Your task to perform on an android device: install app "Speedtest by Ookla" Image 0: 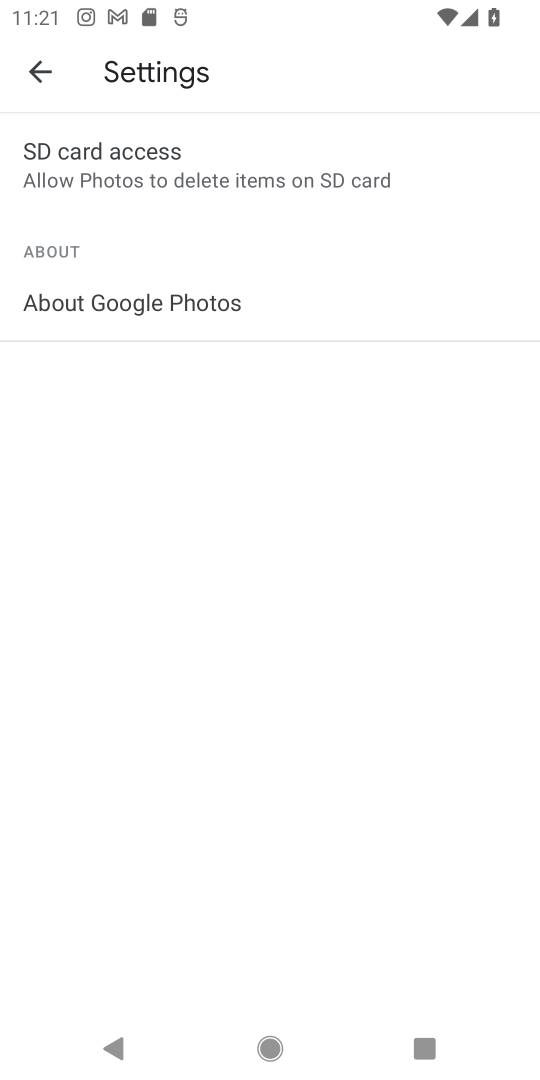
Step 0: press home button
Your task to perform on an android device: install app "Speedtest by Ookla" Image 1: 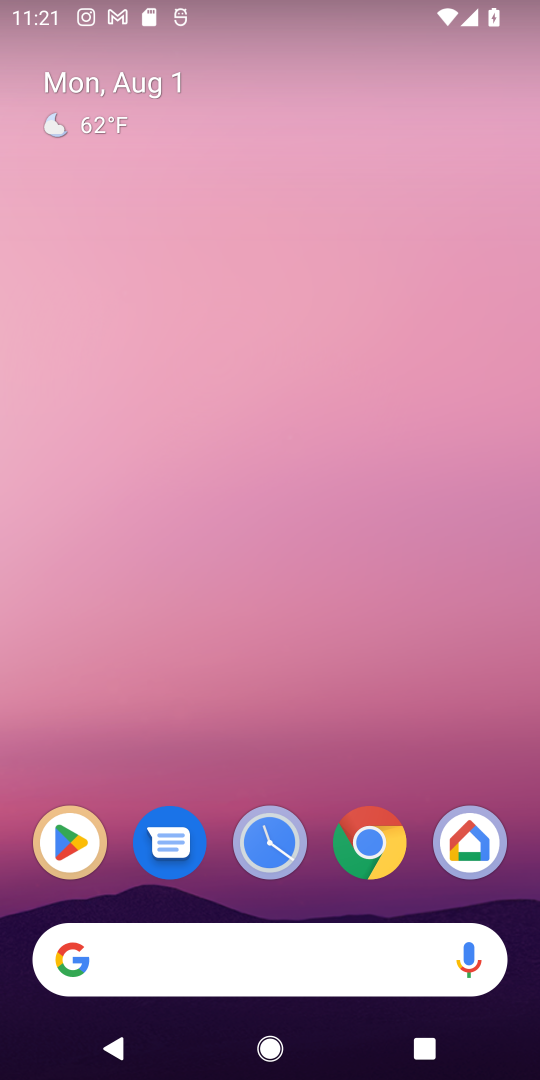
Step 1: click (69, 845)
Your task to perform on an android device: install app "Speedtest by Ookla" Image 2: 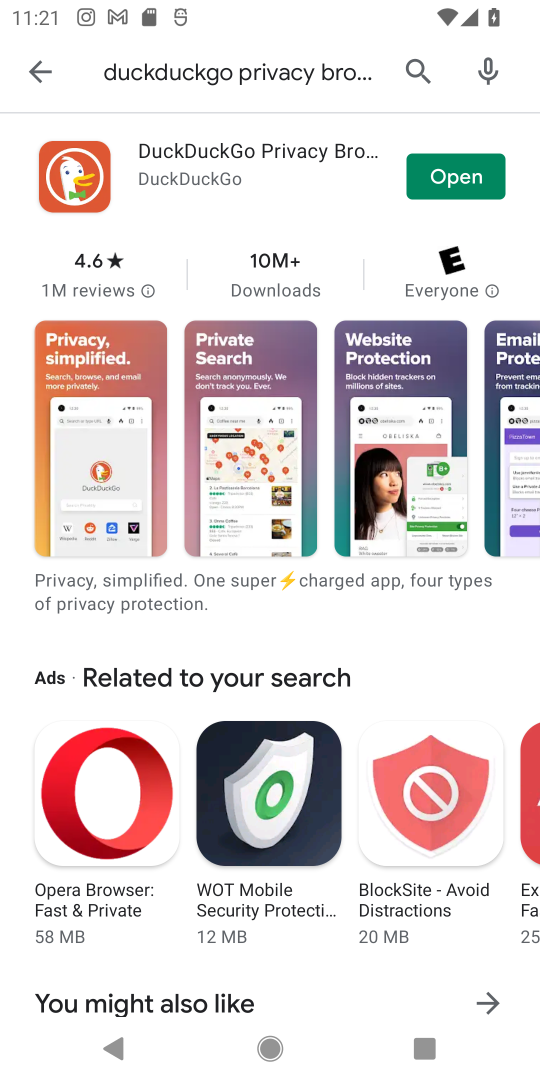
Step 2: click (403, 64)
Your task to perform on an android device: install app "Speedtest by Ookla" Image 3: 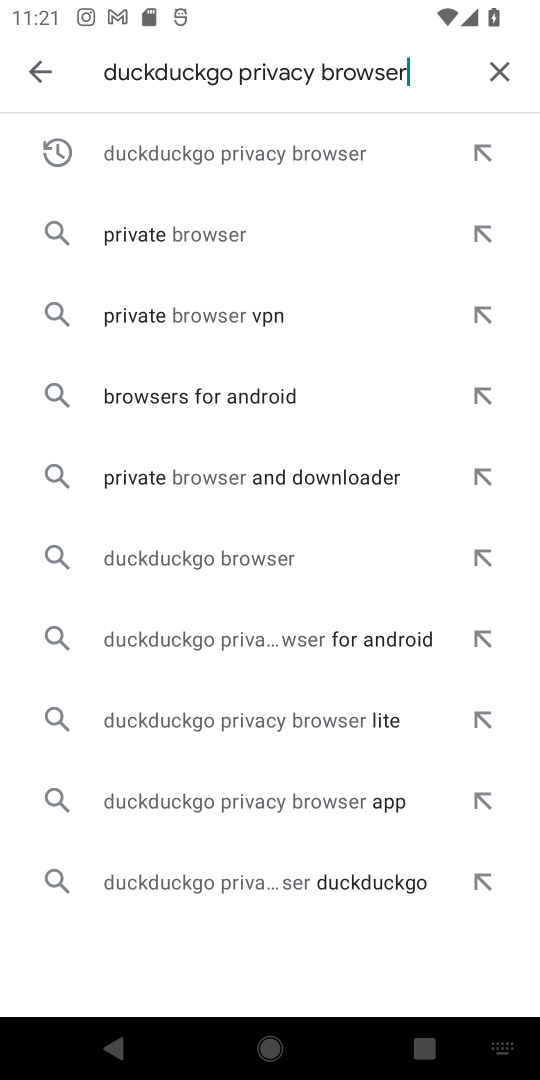
Step 3: click (512, 73)
Your task to perform on an android device: install app "Speedtest by Ookla" Image 4: 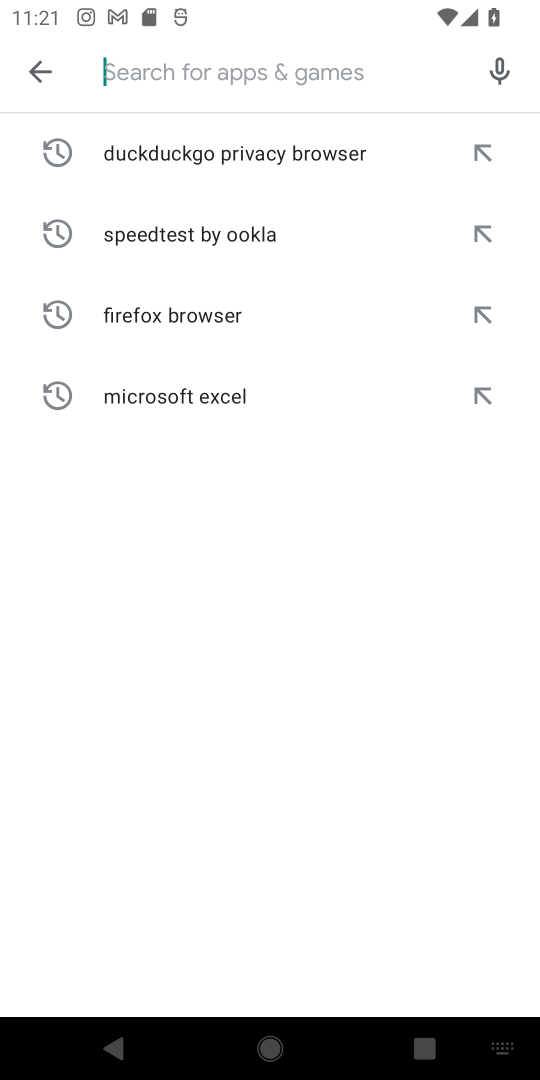
Step 4: click (266, 81)
Your task to perform on an android device: install app "Speedtest by Ookla" Image 5: 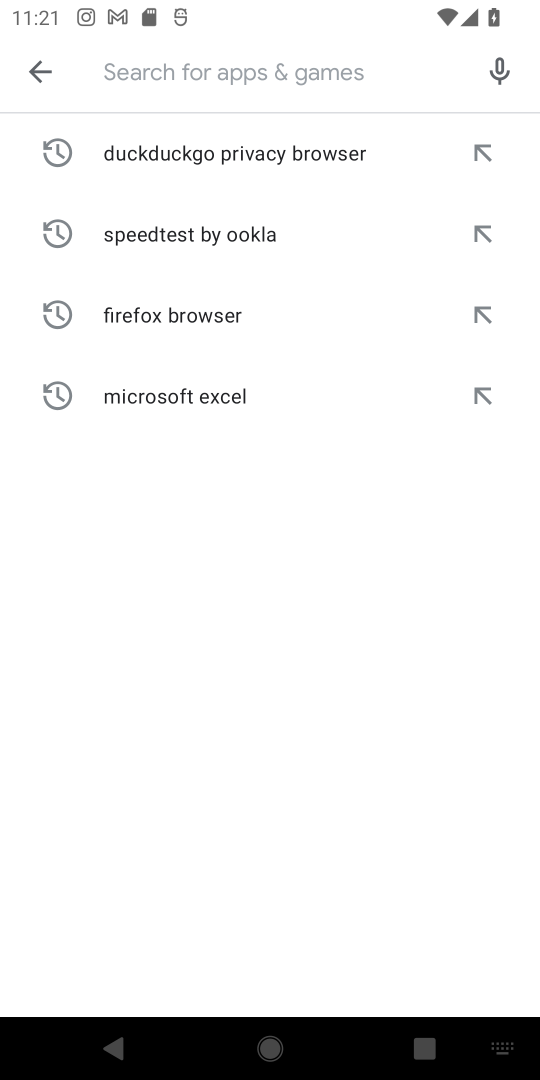
Step 5: click (193, 76)
Your task to perform on an android device: install app "Speedtest by Ookla" Image 6: 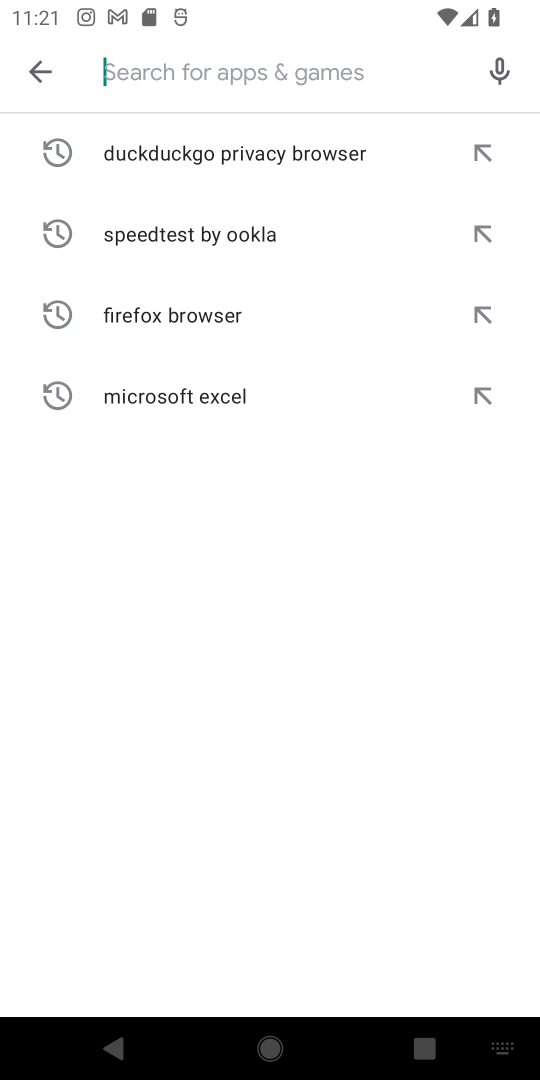
Step 6: type "Speedtest by Ookla"
Your task to perform on an android device: install app "Speedtest by Ookla" Image 7: 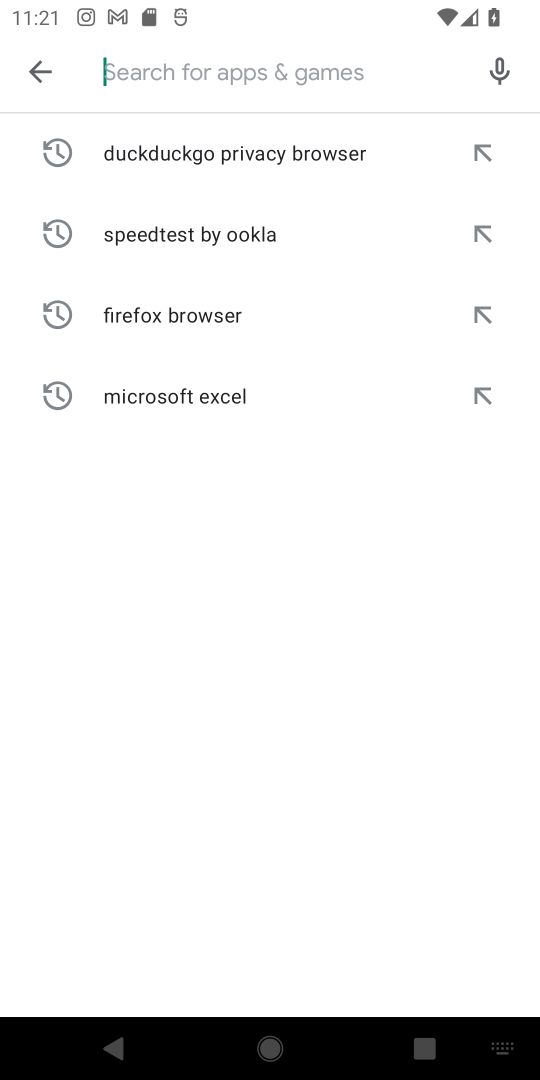
Step 7: click (134, 572)
Your task to perform on an android device: install app "Speedtest by Ookla" Image 8: 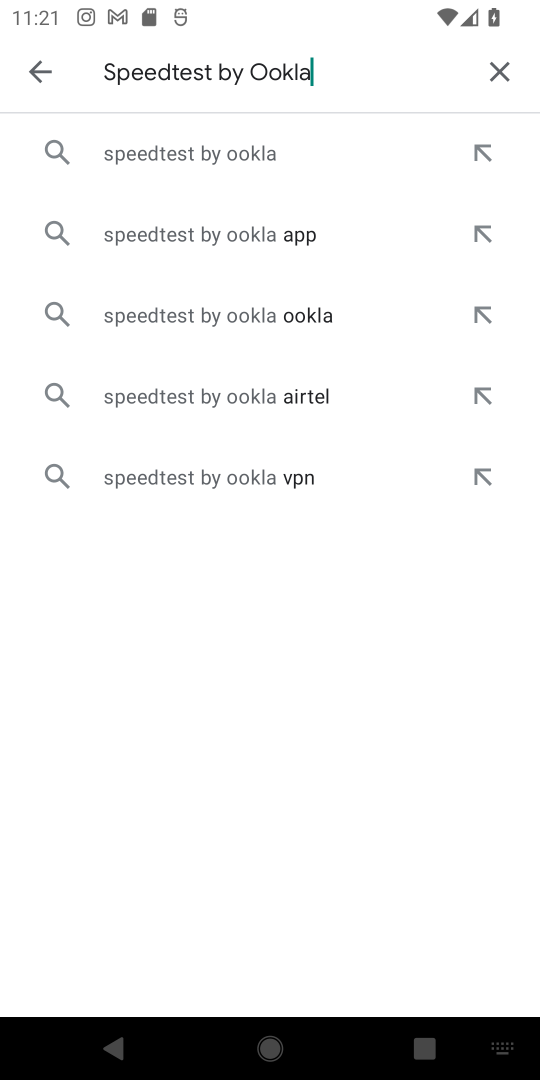
Step 8: click (225, 150)
Your task to perform on an android device: install app "Speedtest by Ookla" Image 9: 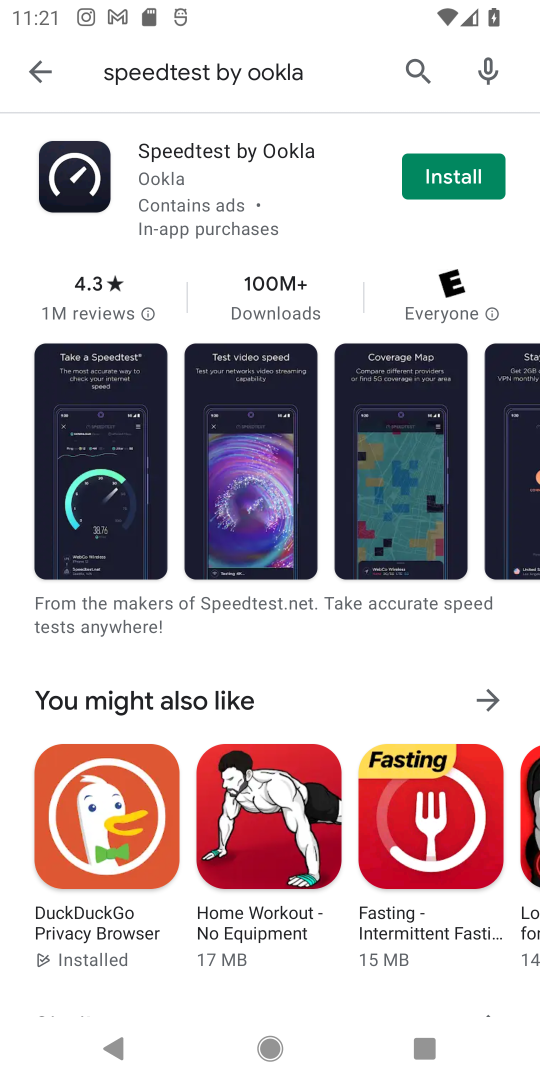
Step 9: click (456, 183)
Your task to perform on an android device: install app "Speedtest by Ookla" Image 10: 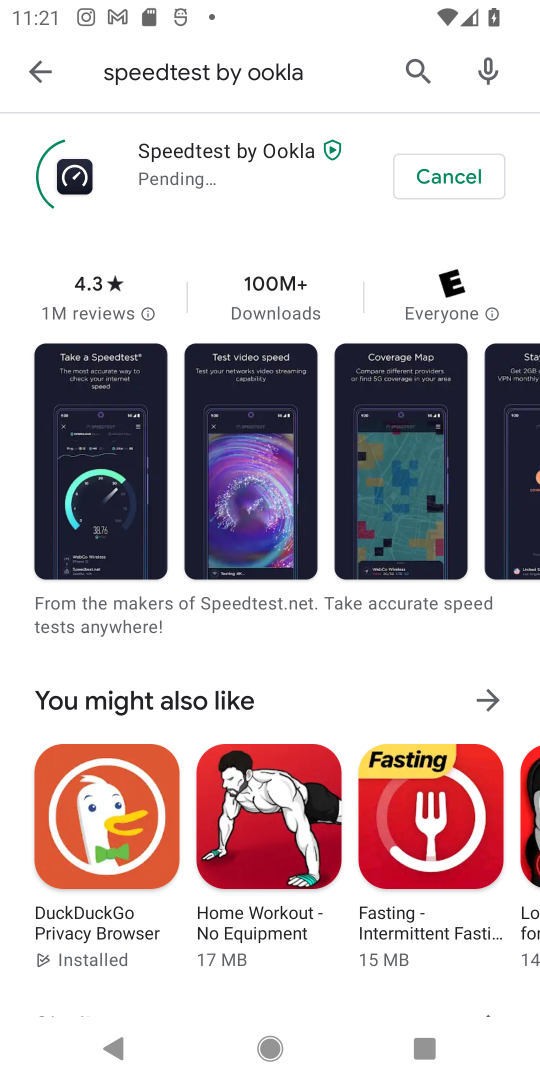
Step 10: task complete